Your task to perform on an android device: When is my next appointment? Image 0: 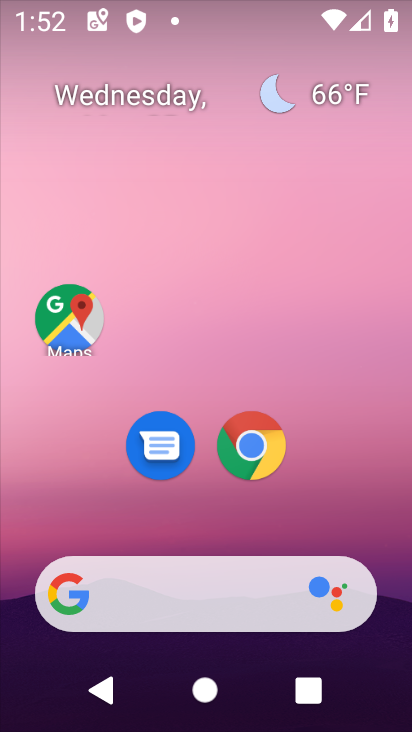
Step 0: drag from (35, 618) to (251, 124)
Your task to perform on an android device: When is my next appointment? Image 1: 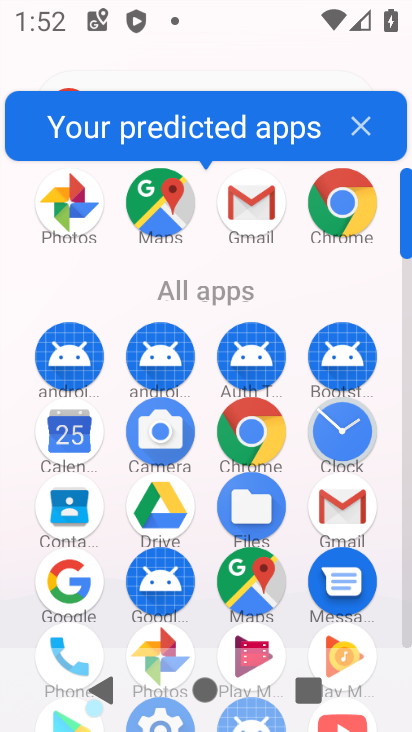
Step 1: click (356, 129)
Your task to perform on an android device: When is my next appointment? Image 2: 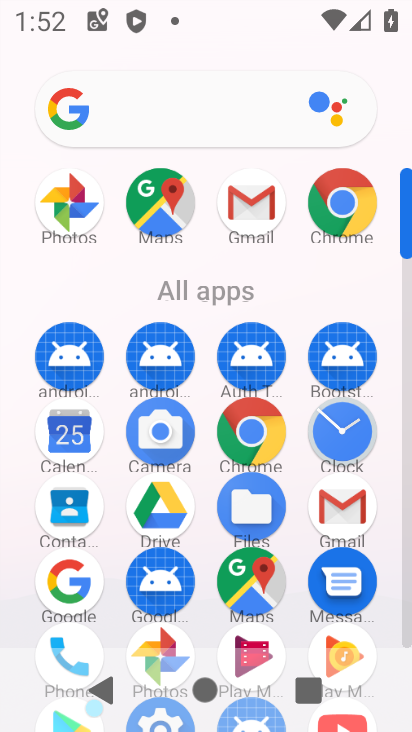
Step 2: click (61, 442)
Your task to perform on an android device: When is my next appointment? Image 3: 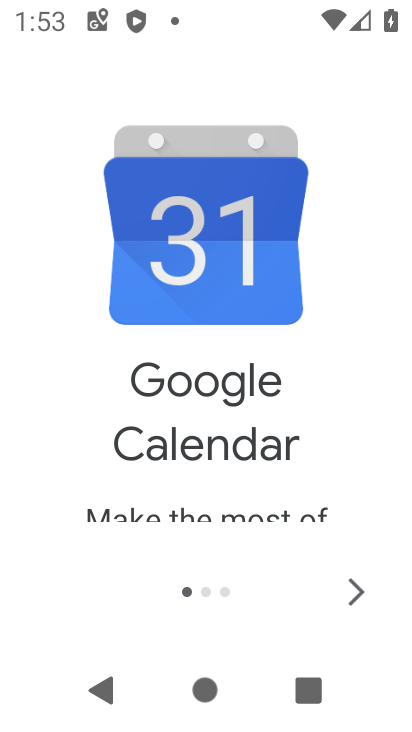
Step 3: click (358, 586)
Your task to perform on an android device: When is my next appointment? Image 4: 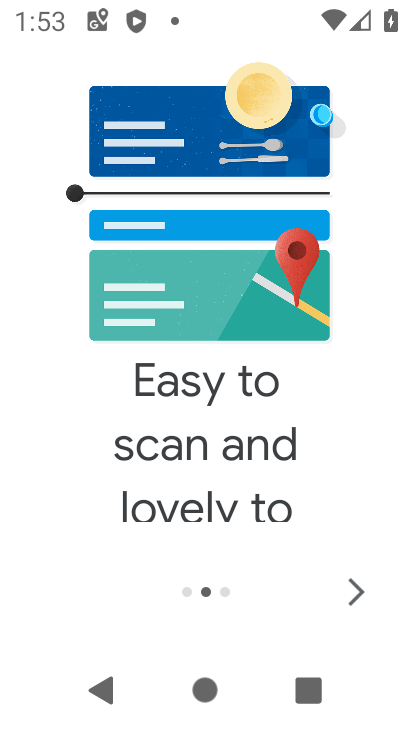
Step 4: click (358, 585)
Your task to perform on an android device: When is my next appointment? Image 5: 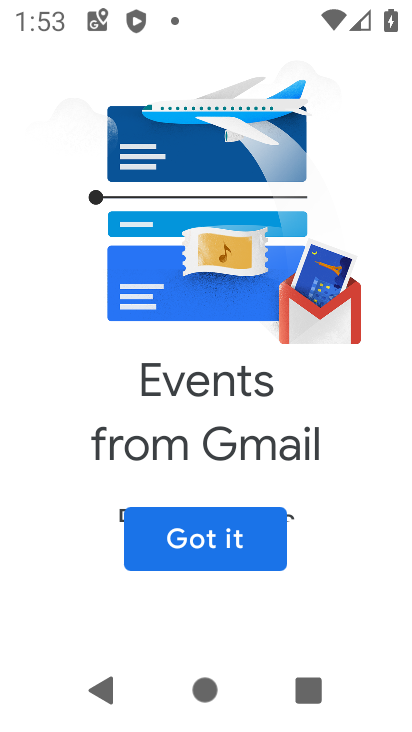
Step 5: click (209, 545)
Your task to perform on an android device: When is my next appointment? Image 6: 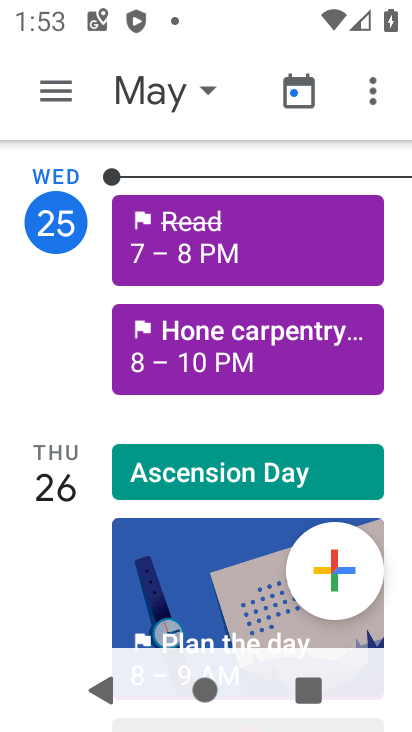
Step 6: click (179, 87)
Your task to perform on an android device: When is my next appointment? Image 7: 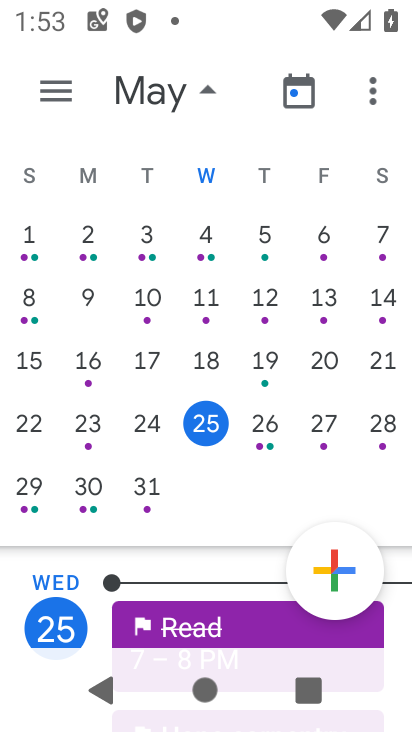
Step 7: click (275, 424)
Your task to perform on an android device: When is my next appointment? Image 8: 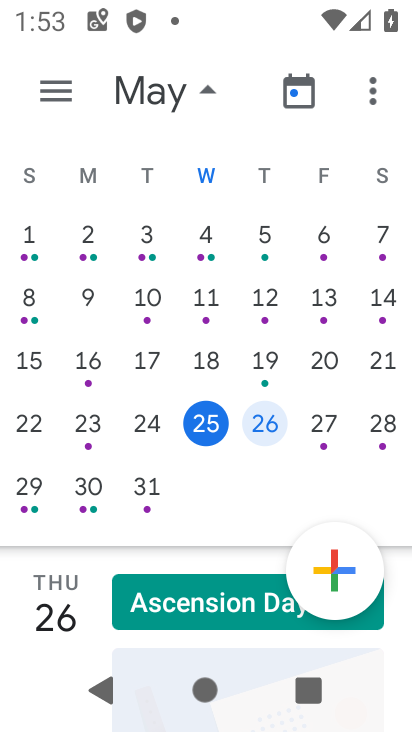
Step 8: task complete